Your task to perform on an android device: What's on my calendar tomorrow? Image 0: 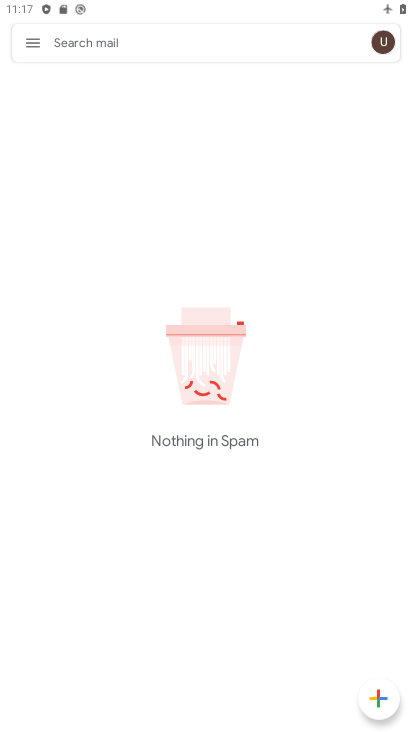
Step 0: press home button
Your task to perform on an android device: What's on my calendar tomorrow? Image 1: 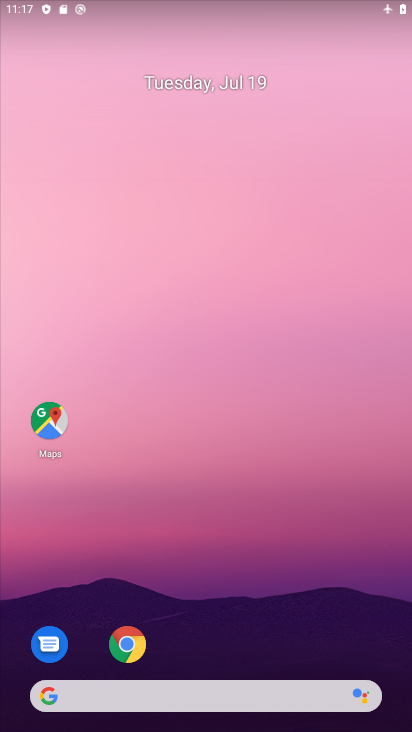
Step 1: drag from (37, 535) to (122, 19)
Your task to perform on an android device: What's on my calendar tomorrow? Image 2: 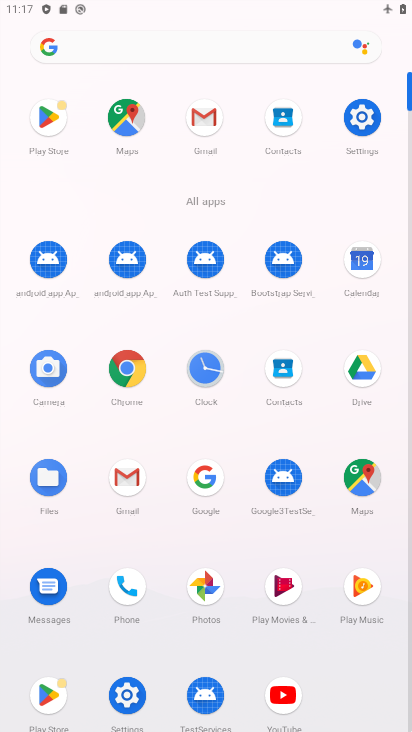
Step 2: click (350, 268)
Your task to perform on an android device: What's on my calendar tomorrow? Image 3: 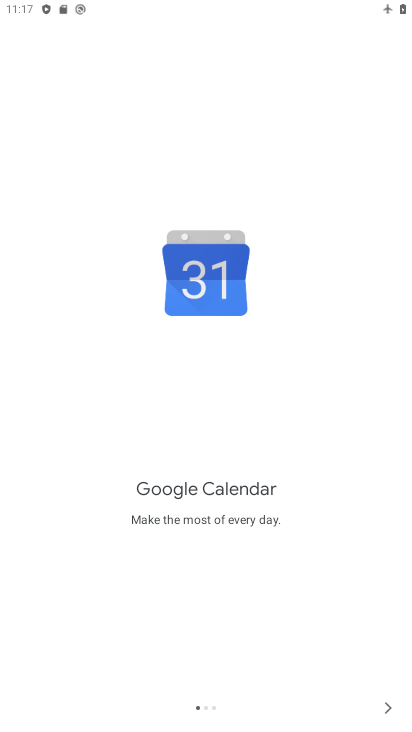
Step 3: click (379, 709)
Your task to perform on an android device: What's on my calendar tomorrow? Image 4: 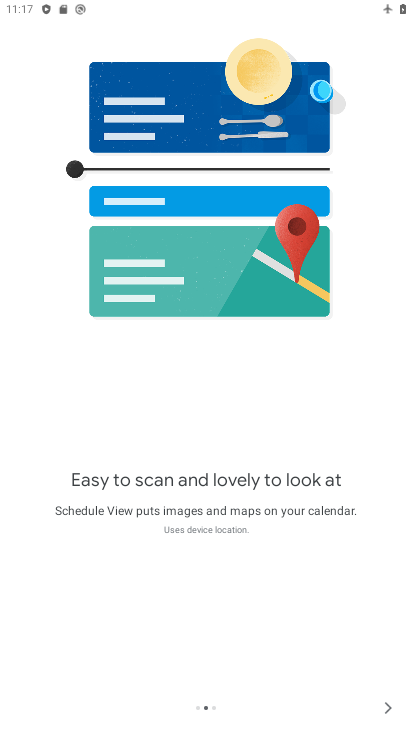
Step 4: click (388, 708)
Your task to perform on an android device: What's on my calendar tomorrow? Image 5: 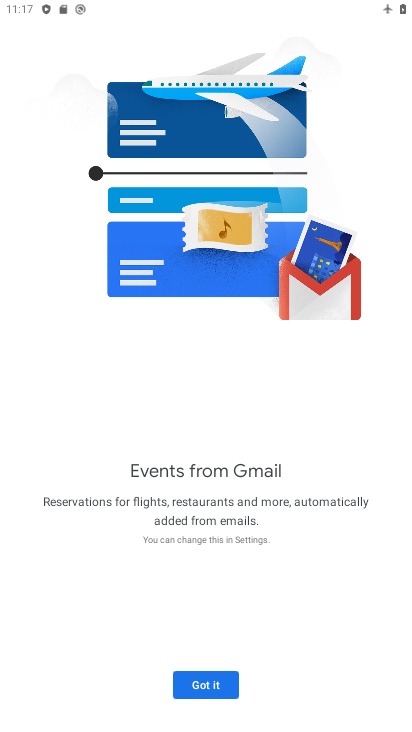
Step 5: click (196, 683)
Your task to perform on an android device: What's on my calendar tomorrow? Image 6: 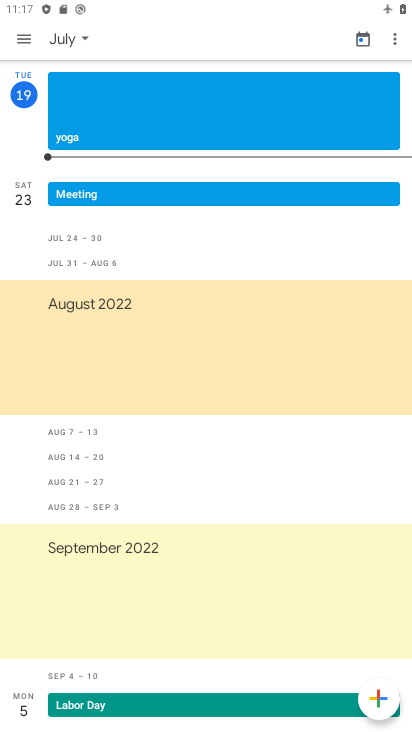
Step 6: click (83, 43)
Your task to perform on an android device: What's on my calendar tomorrow? Image 7: 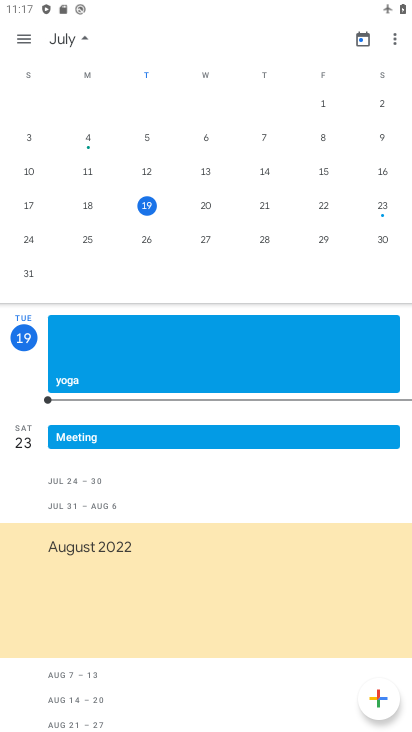
Step 7: task complete